Your task to perform on an android device: turn off translation in the chrome app Image 0: 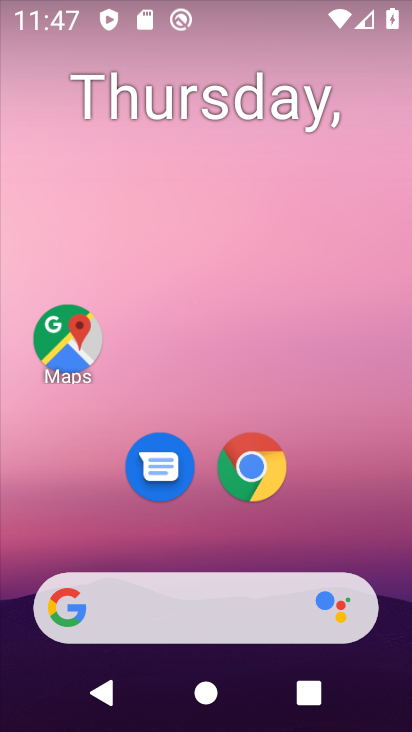
Step 0: click (244, 459)
Your task to perform on an android device: turn off translation in the chrome app Image 1: 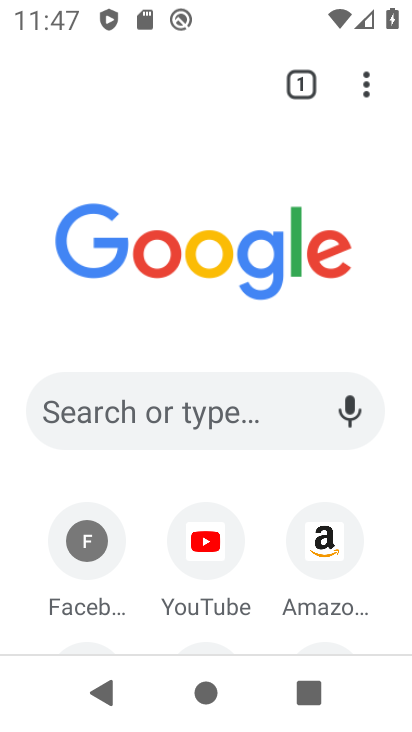
Step 1: click (362, 92)
Your task to perform on an android device: turn off translation in the chrome app Image 2: 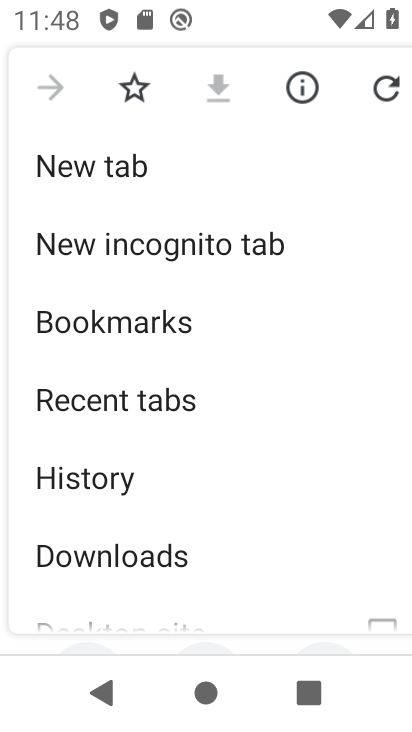
Step 2: drag from (246, 586) to (281, 286)
Your task to perform on an android device: turn off translation in the chrome app Image 3: 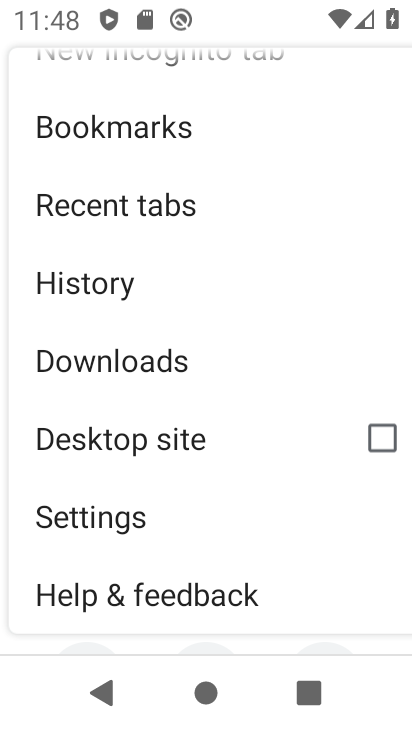
Step 3: click (82, 517)
Your task to perform on an android device: turn off translation in the chrome app Image 4: 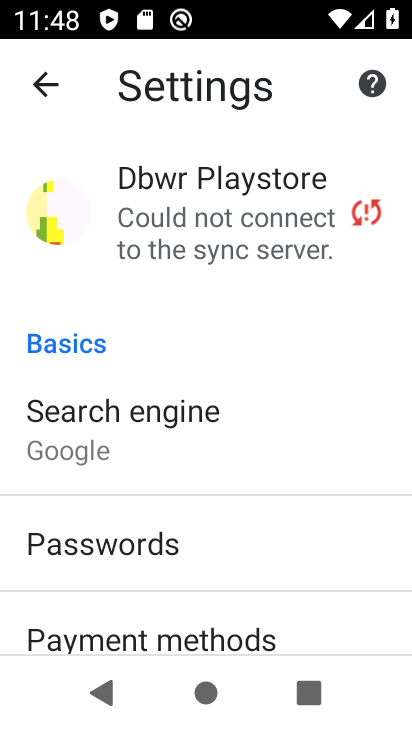
Step 4: drag from (290, 609) to (287, 207)
Your task to perform on an android device: turn off translation in the chrome app Image 5: 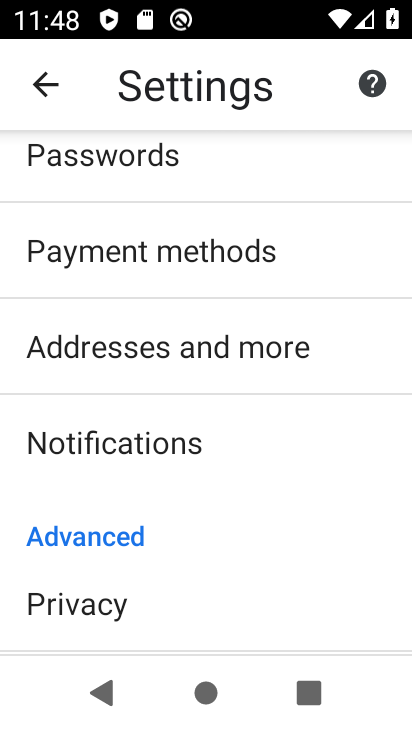
Step 5: drag from (249, 534) to (318, 242)
Your task to perform on an android device: turn off translation in the chrome app Image 6: 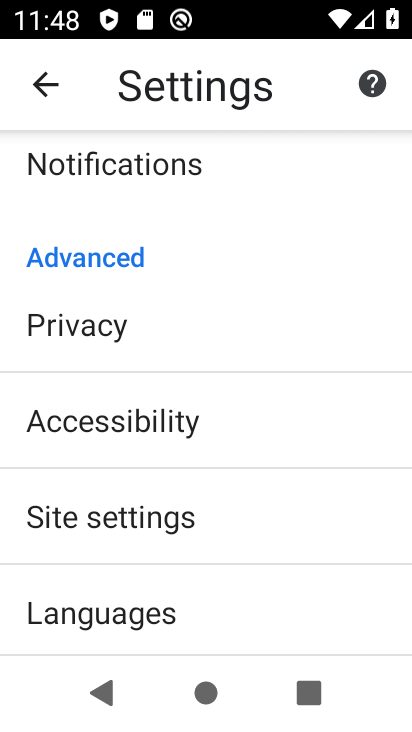
Step 6: drag from (228, 561) to (265, 249)
Your task to perform on an android device: turn off translation in the chrome app Image 7: 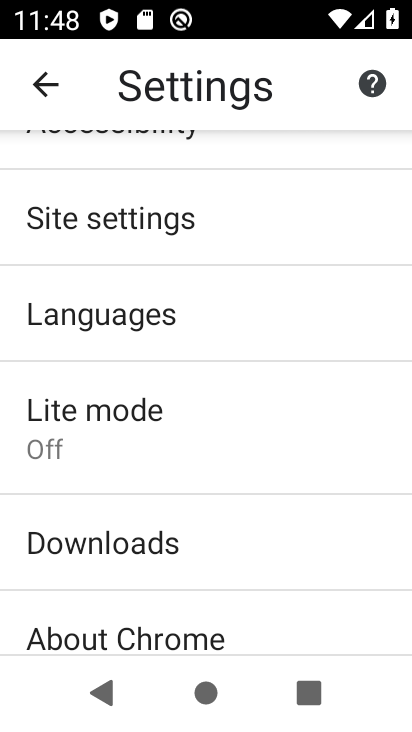
Step 7: click (79, 324)
Your task to perform on an android device: turn off translation in the chrome app Image 8: 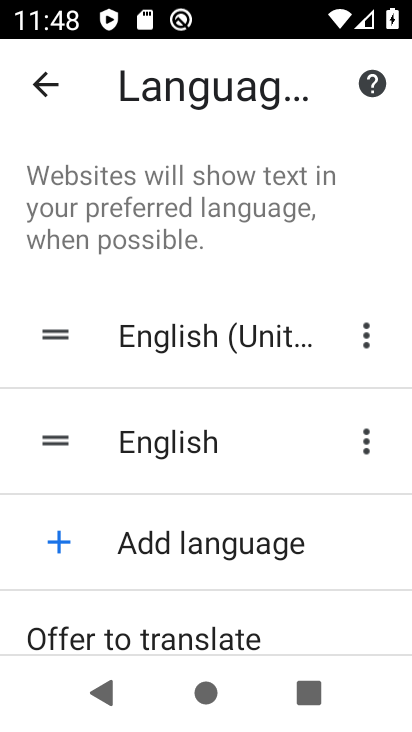
Step 8: drag from (283, 593) to (310, 224)
Your task to perform on an android device: turn off translation in the chrome app Image 9: 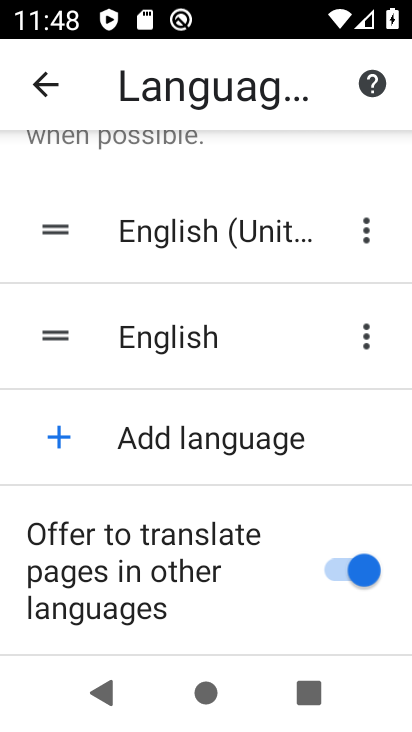
Step 9: click (326, 568)
Your task to perform on an android device: turn off translation in the chrome app Image 10: 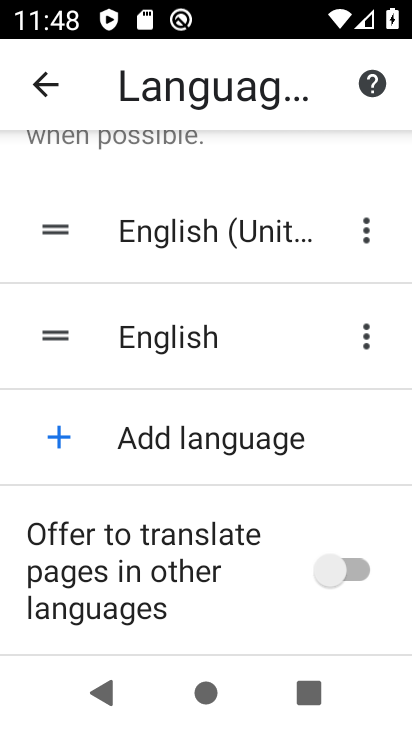
Step 10: task complete